Your task to perform on an android device: all mails in gmail Image 0: 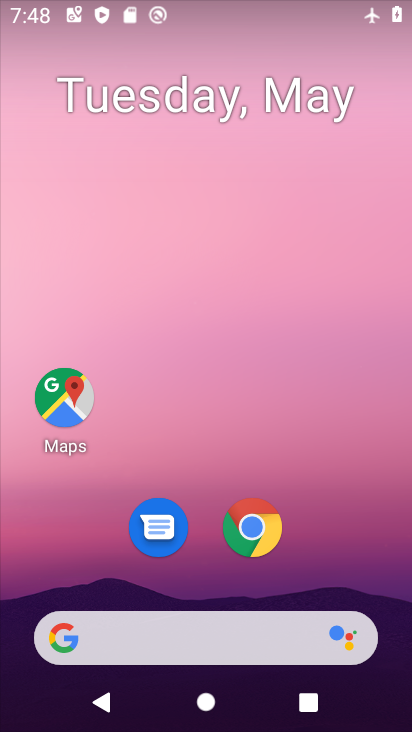
Step 0: drag from (340, 539) to (210, 185)
Your task to perform on an android device: all mails in gmail Image 1: 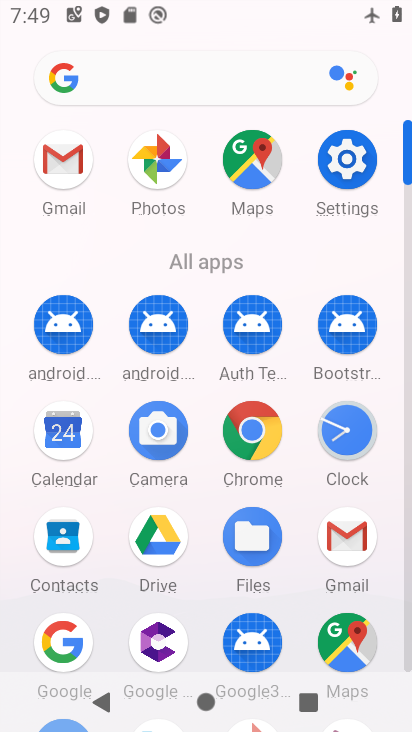
Step 1: click (56, 151)
Your task to perform on an android device: all mails in gmail Image 2: 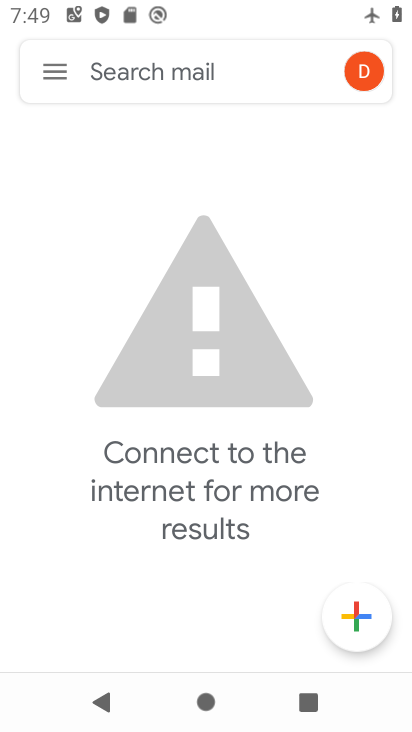
Step 2: click (44, 81)
Your task to perform on an android device: all mails in gmail Image 3: 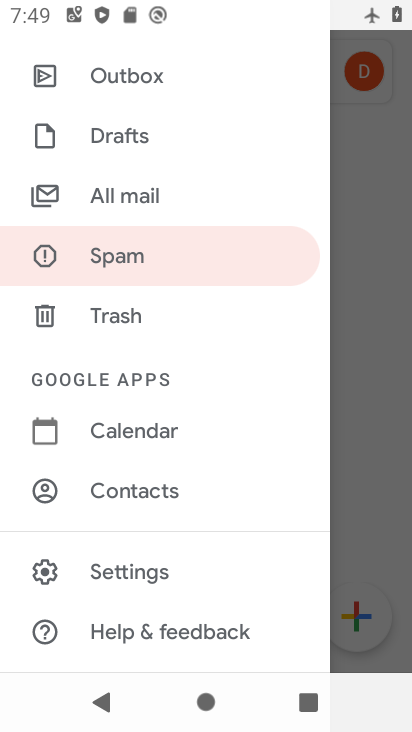
Step 3: click (128, 193)
Your task to perform on an android device: all mails in gmail Image 4: 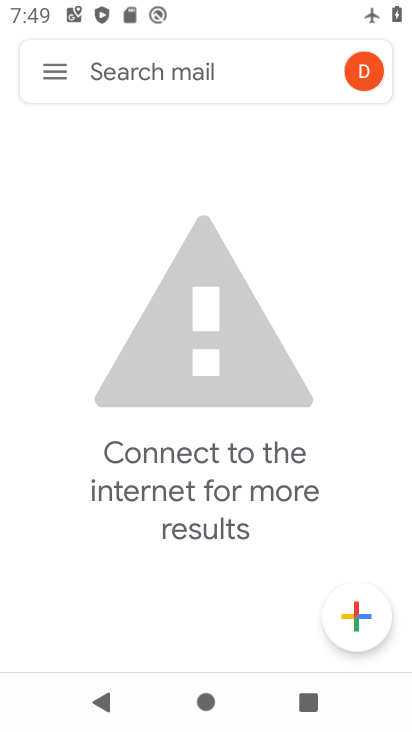
Step 4: task complete